Your task to perform on an android device: Open Chrome and go to settings Image 0: 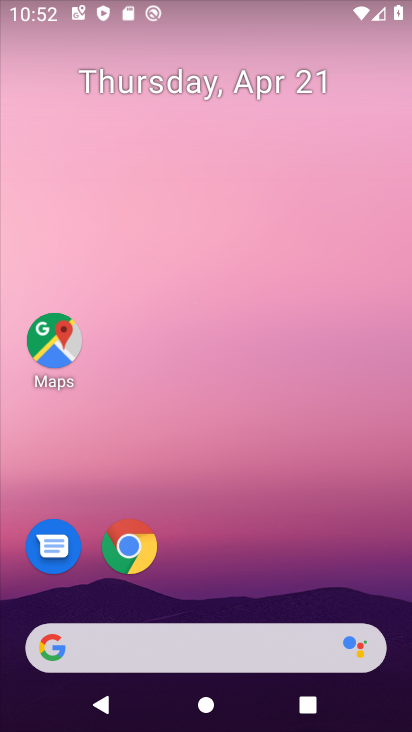
Step 0: drag from (294, 531) to (322, 154)
Your task to perform on an android device: Open Chrome and go to settings Image 1: 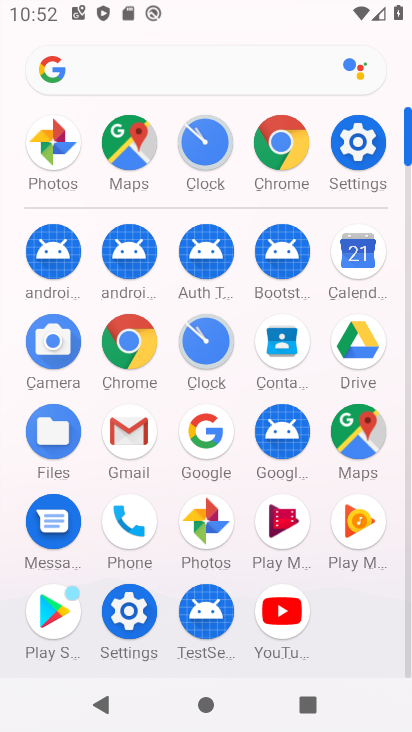
Step 1: click (139, 349)
Your task to perform on an android device: Open Chrome and go to settings Image 2: 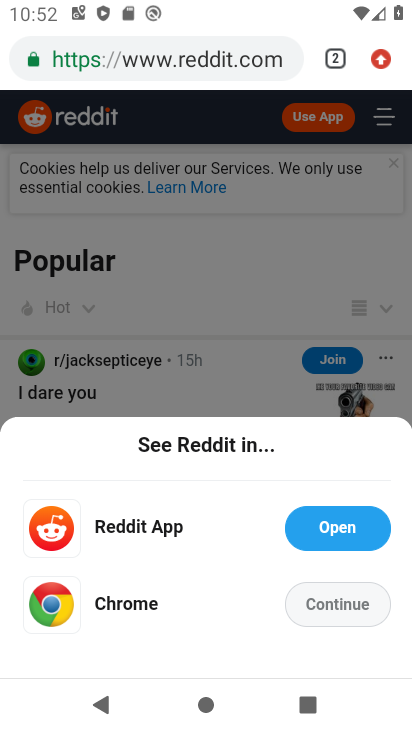
Step 2: task complete